Your task to perform on an android device: set default search engine in the chrome app Image 0: 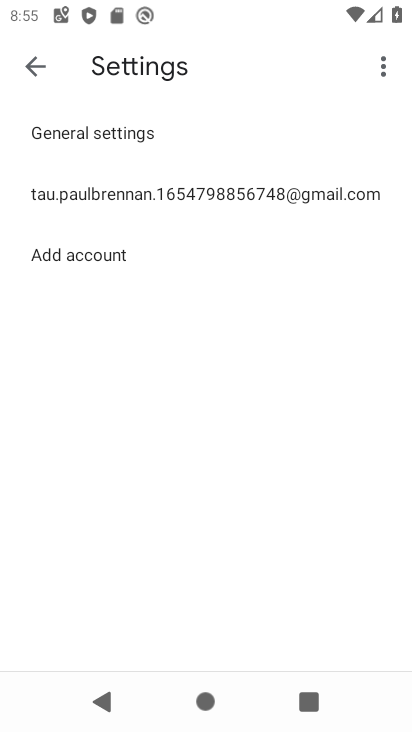
Step 0: press home button
Your task to perform on an android device: set default search engine in the chrome app Image 1: 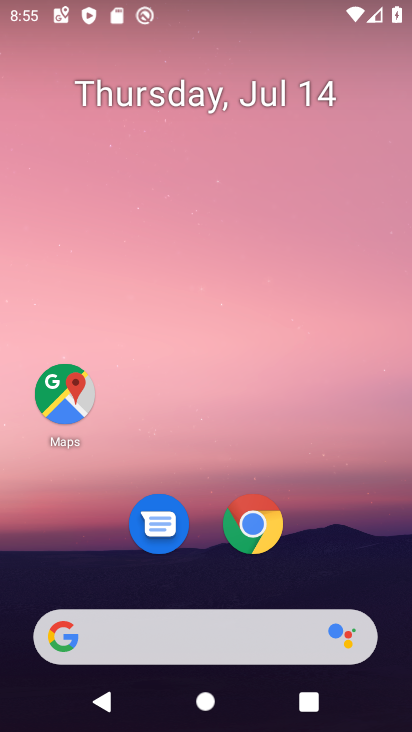
Step 1: click (261, 500)
Your task to perform on an android device: set default search engine in the chrome app Image 2: 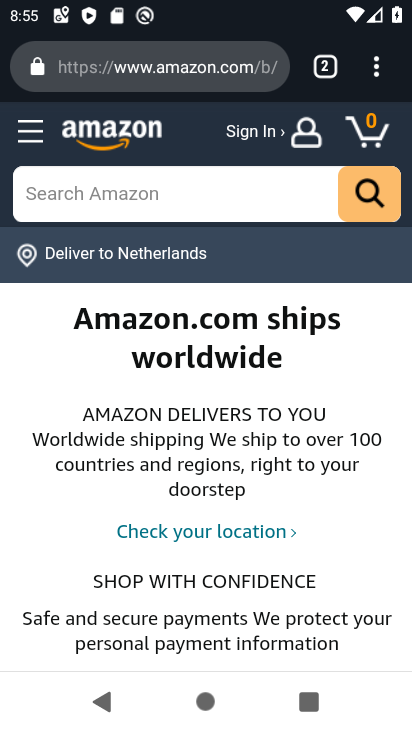
Step 2: click (380, 69)
Your task to perform on an android device: set default search engine in the chrome app Image 3: 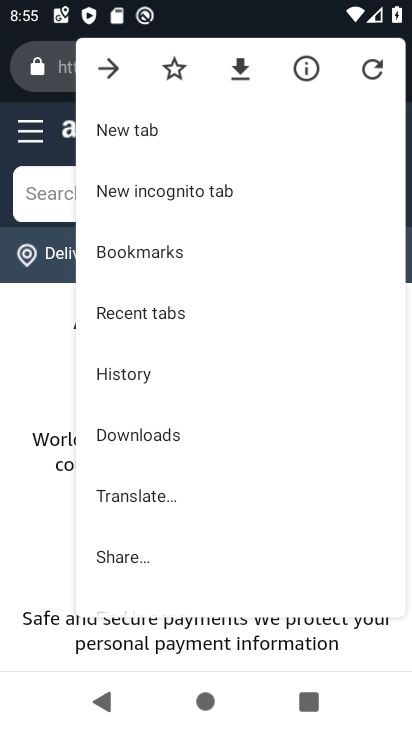
Step 3: drag from (245, 514) to (274, 174)
Your task to perform on an android device: set default search engine in the chrome app Image 4: 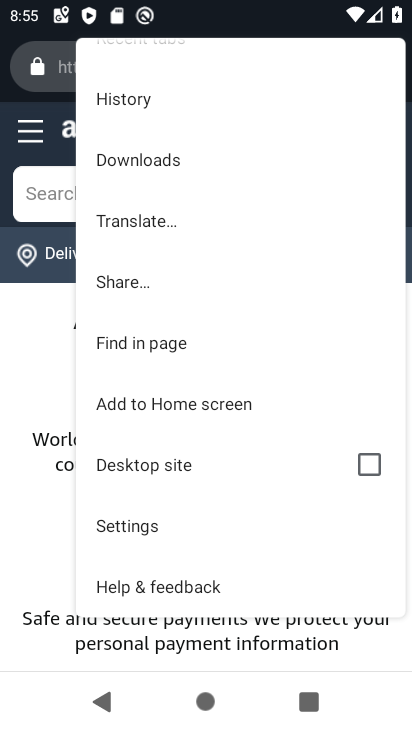
Step 4: click (145, 522)
Your task to perform on an android device: set default search engine in the chrome app Image 5: 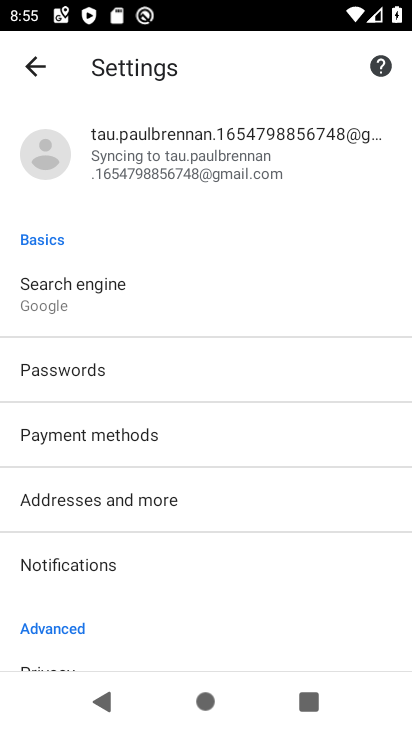
Step 5: click (97, 289)
Your task to perform on an android device: set default search engine in the chrome app Image 6: 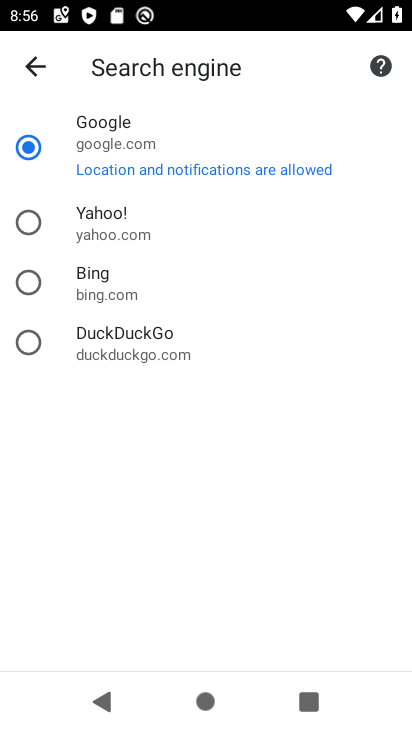
Step 6: task complete